Your task to perform on an android device: turn off picture-in-picture Image 0: 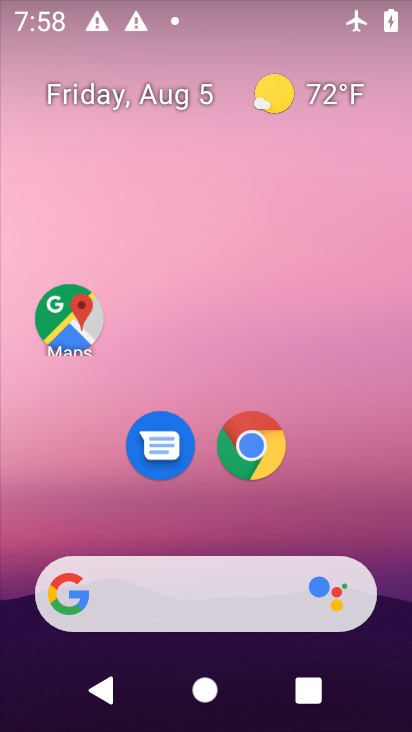
Step 0: click (257, 469)
Your task to perform on an android device: turn off picture-in-picture Image 1: 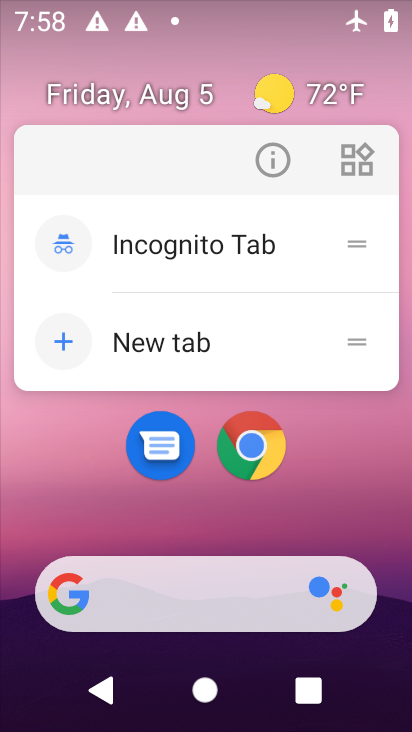
Step 1: click (269, 175)
Your task to perform on an android device: turn off picture-in-picture Image 2: 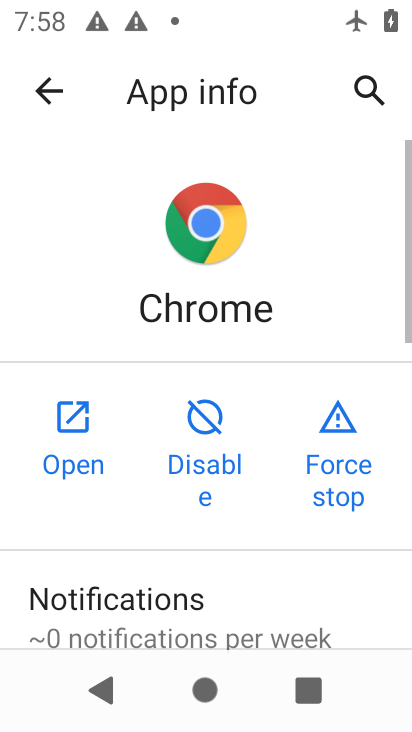
Step 2: drag from (282, 576) to (266, 247)
Your task to perform on an android device: turn off picture-in-picture Image 3: 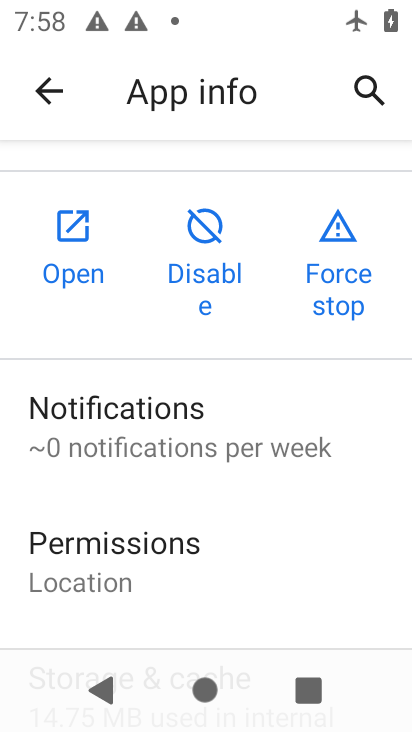
Step 3: drag from (226, 538) to (223, 156)
Your task to perform on an android device: turn off picture-in-picture Image 4: 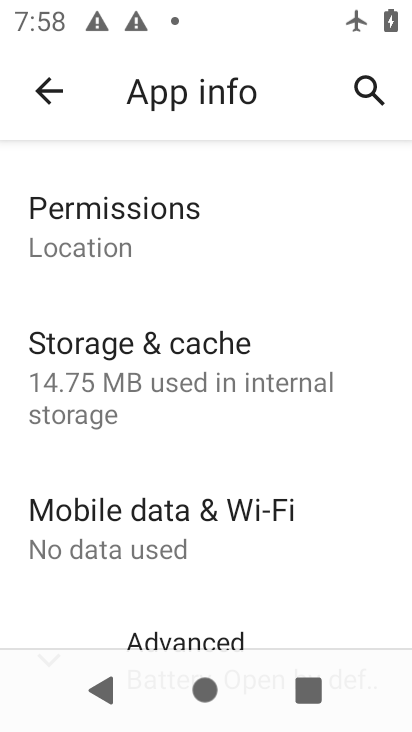
Step 4: drag from (201, 542) to (245, 221)
Your task to perform on an android device: turn off picture-in-picture Image 5: 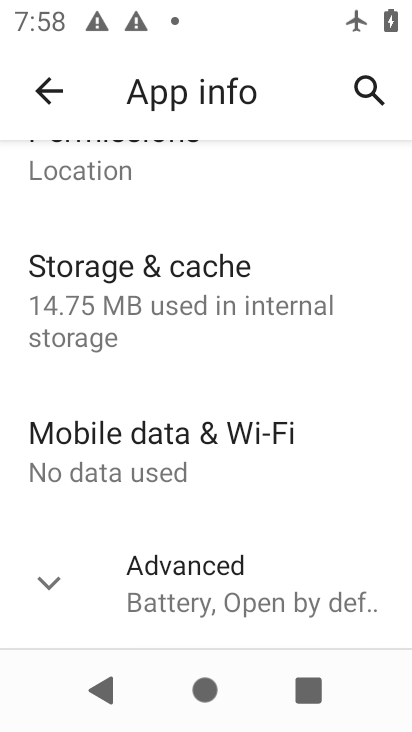
Step 5: click (219, 582)
Your task to perform on an android device: turn off picture-in-picture Image 6: 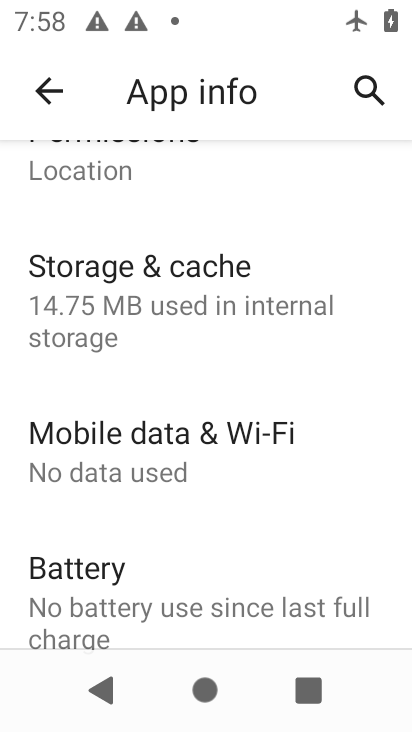
Step 6: drag from (231, 571) to (235, 218)
Your task to perform on an android device: turn off picture-in-picture Image 7: 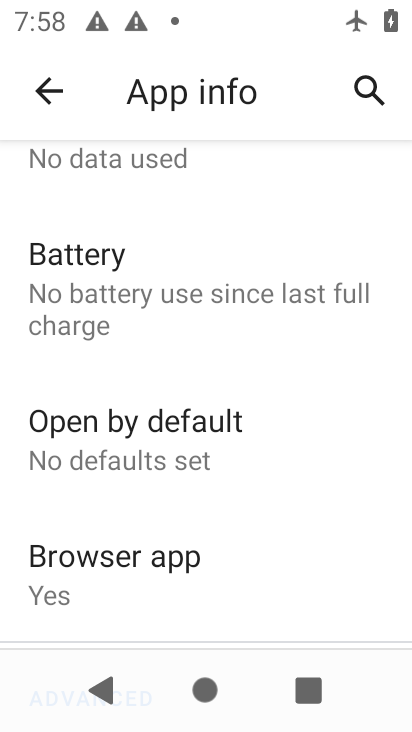
Step 7: drag from (269, 547) to (253, 247)
Your task to perform on an android device: turn off picture-in-picture Image 8: 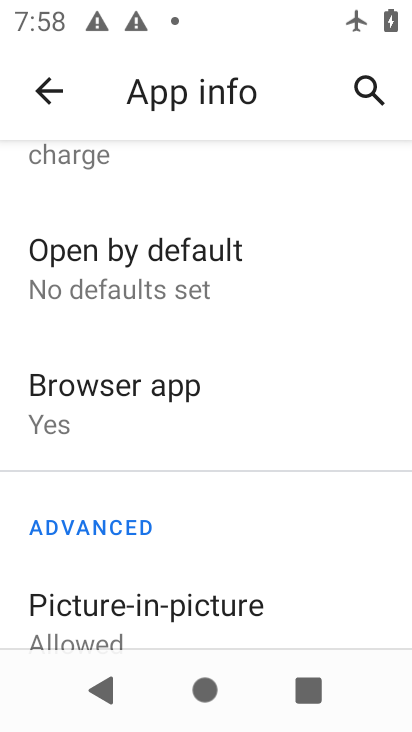
Step 8: drag from (277, 504) to (267, 190)
Your task to perform on an android device: turn off picture-in-picture Image 9: 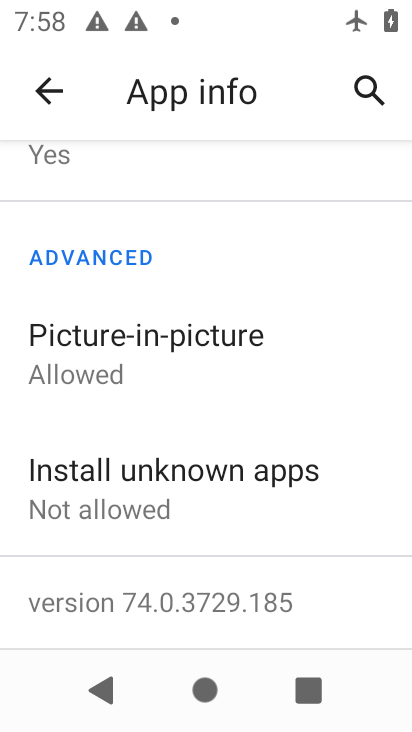
Step 9: click (232, 495)
Your task to perform on an android device: turn off picture-in-picture Image 10: 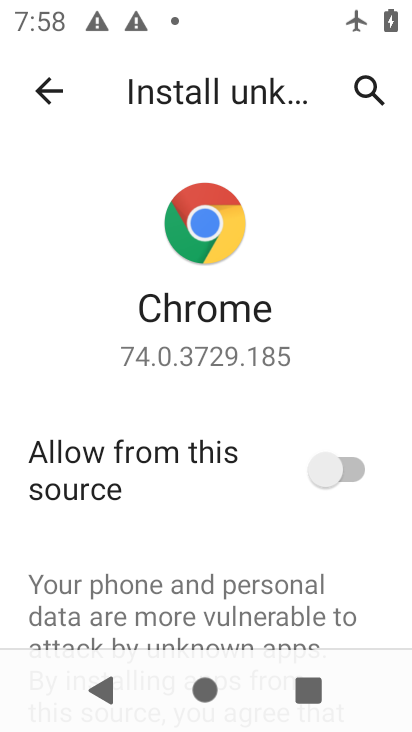
Step 10: drag from (262, 535) to (337, 250)
Your task to perform on an android device: turn off picture-in-picture Image 11: 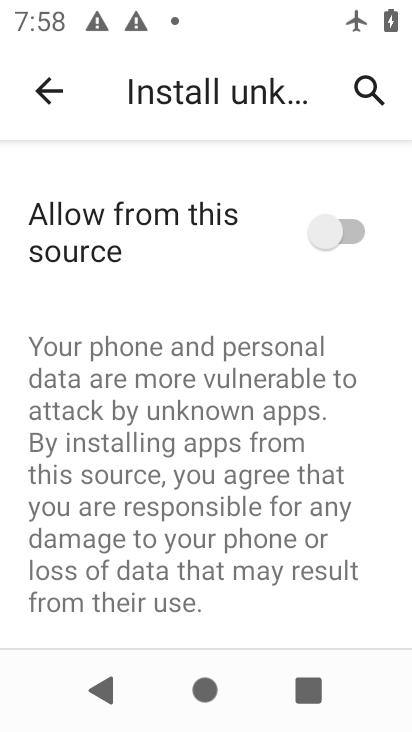
Step 11: click (58, 89)
Your task to perform on an android device: turn off picture-in-picture Image 12: 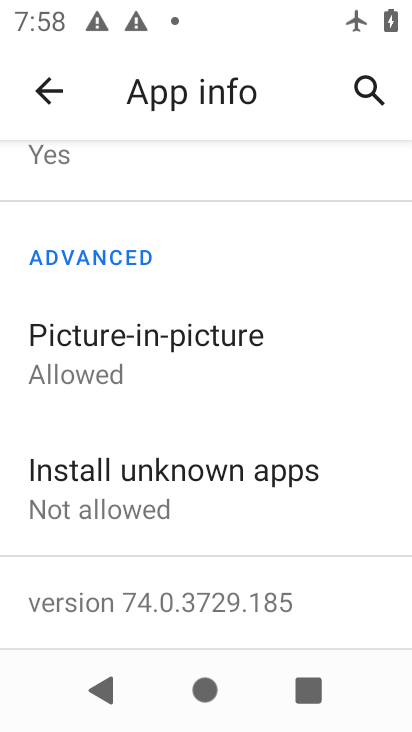
Step 12: drag from (223, 571) to (251, 384)
Your task to perform on an android device: turn off picture-in-picture Image 13: 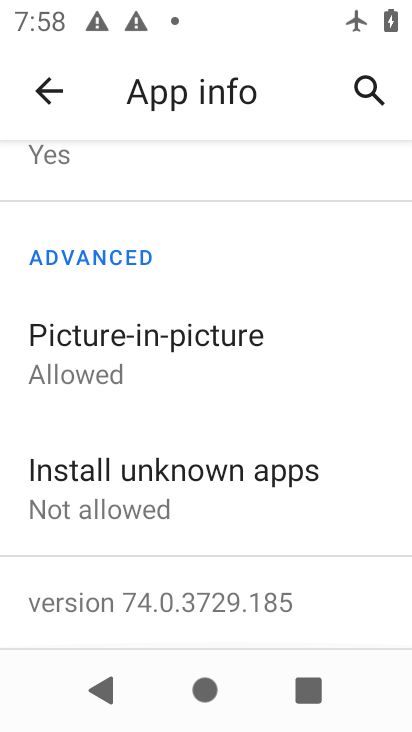
Step 13: click (208, 355)
Your task to perform on an android device: turn off picture-in-picture Image 14: 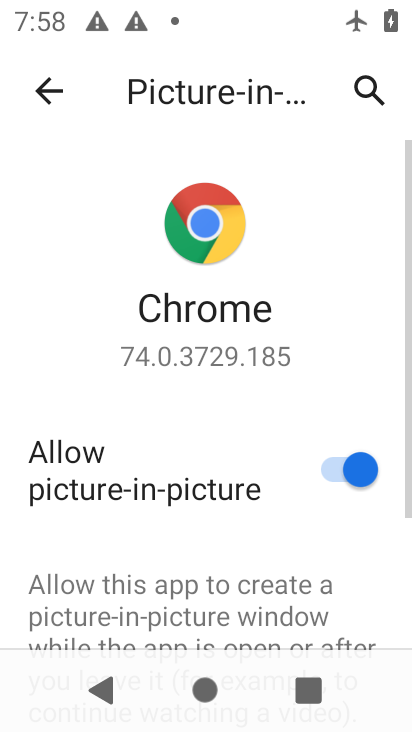
Step 14: click (336, 474)
Your task to perform on an android device: turn off picture-in-picture Image 15: 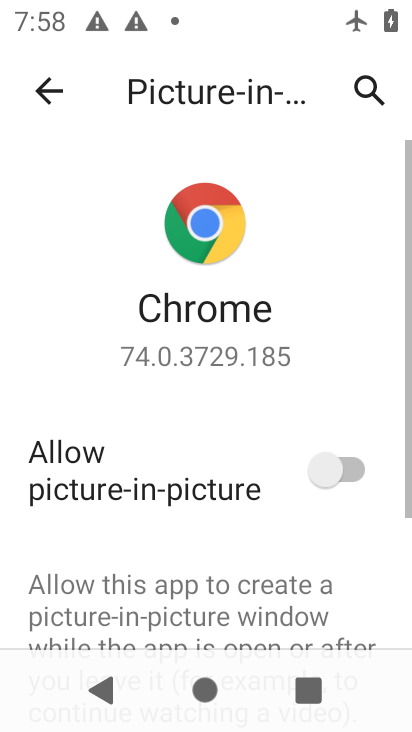
Step 15: task complete